Your task to perform on an android device: make emails show in primary in the gmail app Image 0: 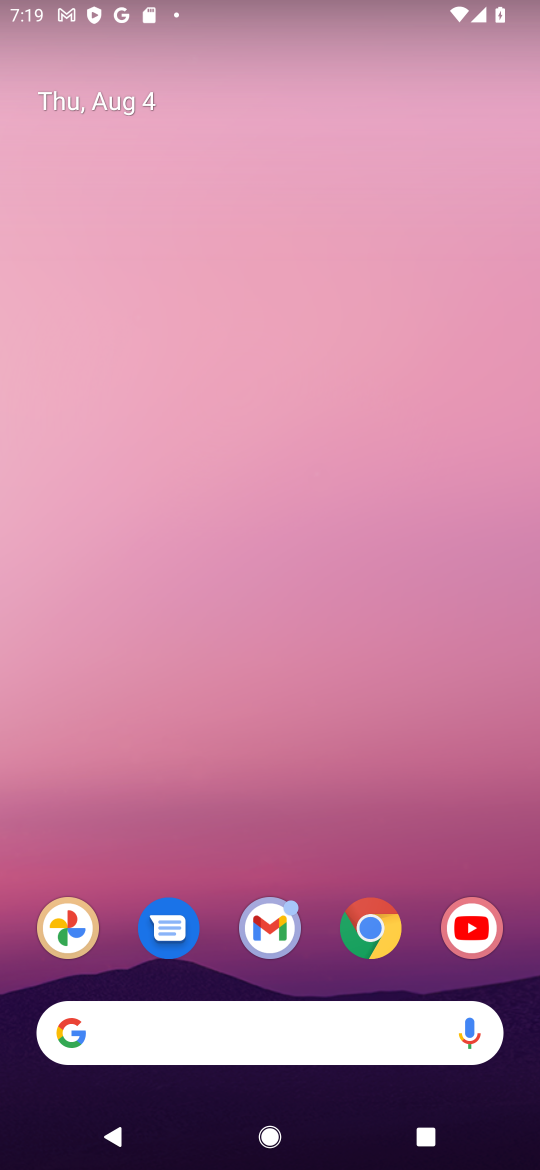
Step 0: click (262, 939)
Your task to perform on an android device: make emails show in primary in the gmail app Image 1: 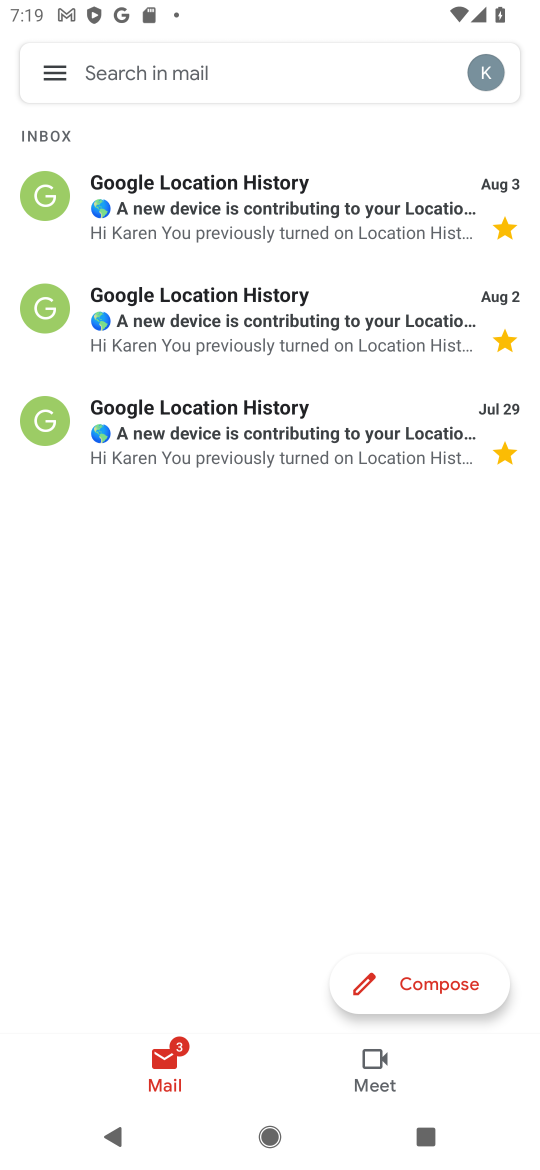
Step 1: click (60, 57)
Your task to perform on an android device: make emails show in primary in the gmail app Image 2: 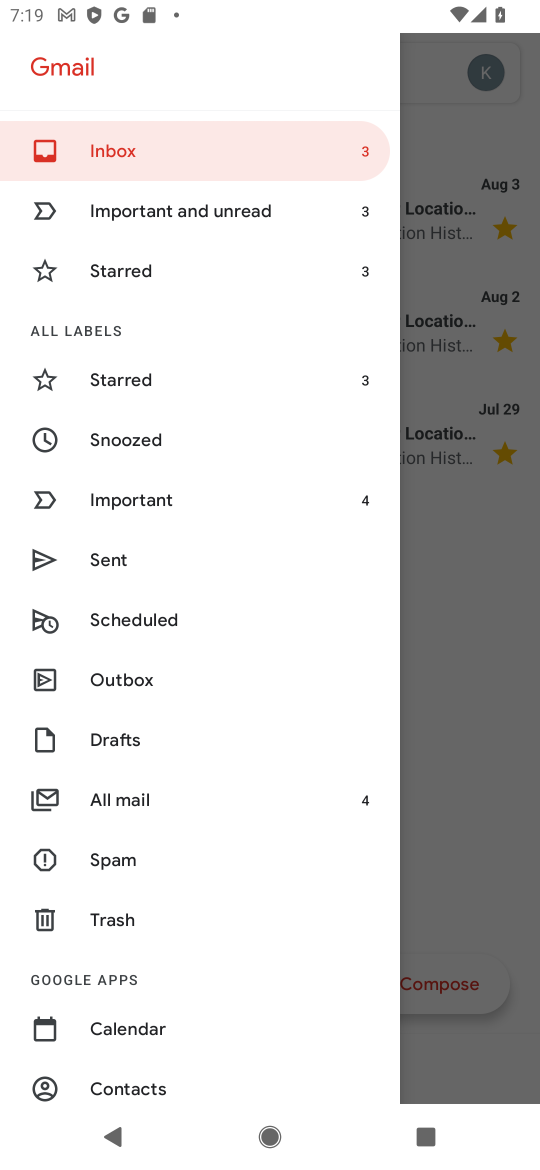
Step 2: drag from (175, 957) to (194, 373)
Your task to perform on an android device: make emails show in primary in the gmail app Image 3: 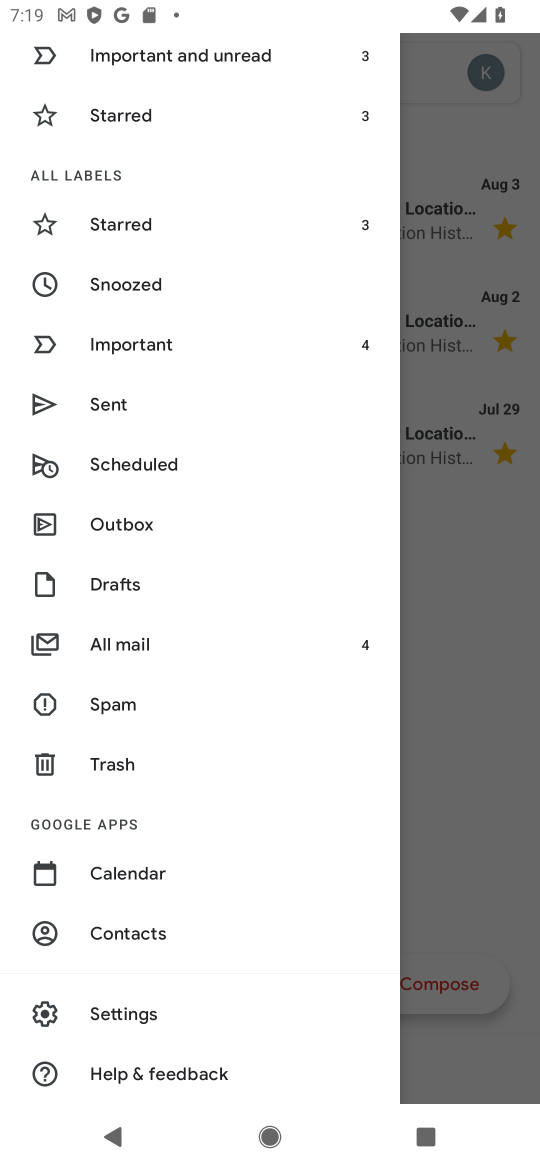
Step 3: click (128, 1019)
Your task to perform on an android device: make emails show in primary in the gmail app Image 4: 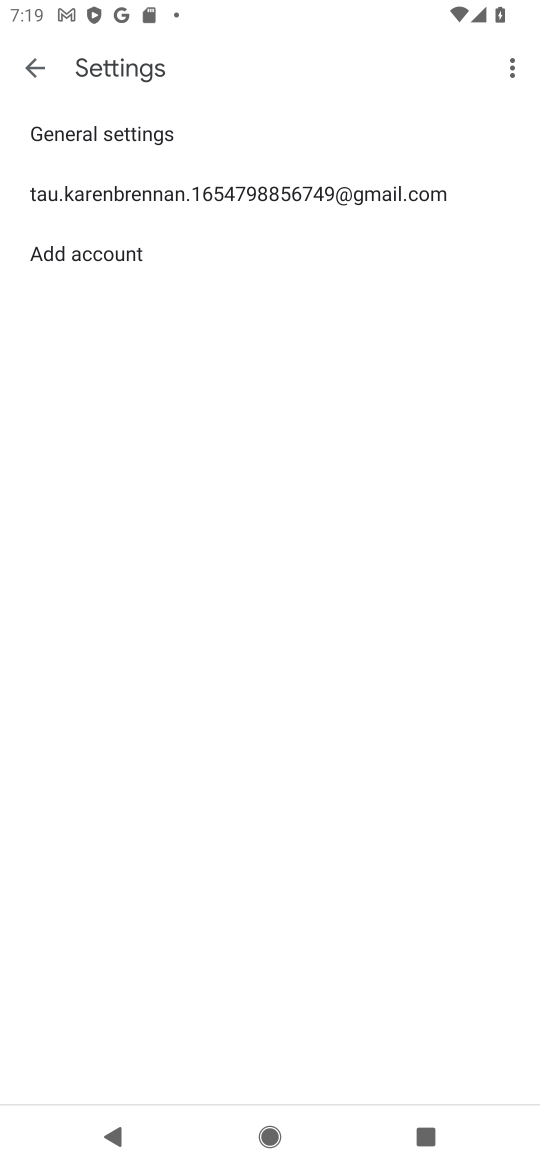
Step 4: click (113, 192)
Your task to perform on an android device: make emails show in primary in the gmail app Image 5: 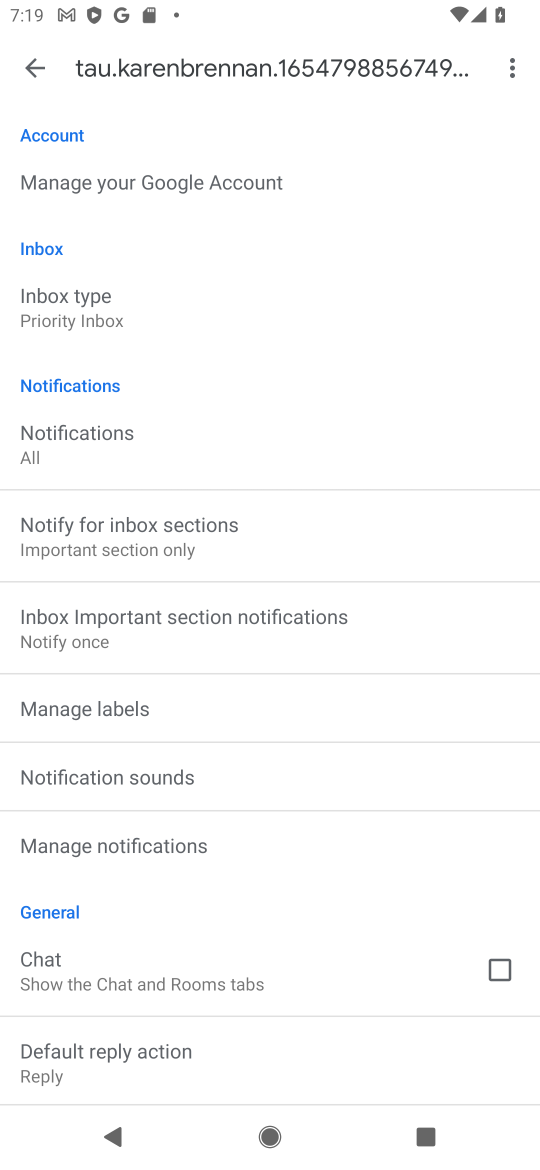
Step 5: click (107, 322)
Your task to perform on an android device: make emails show in primary in the gmail app Image 6: 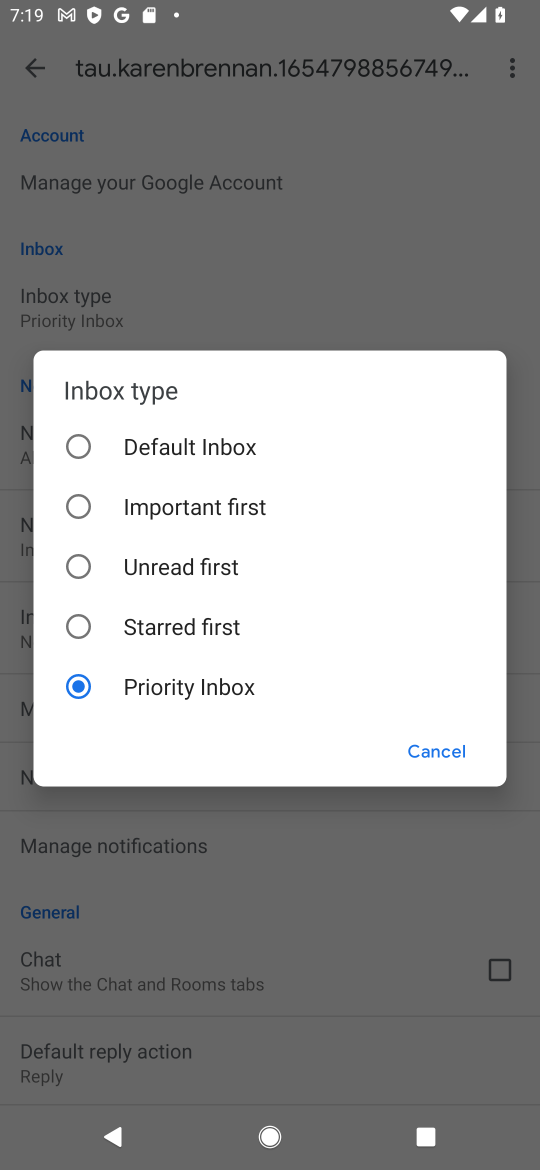
Step 6: click (175, 461)
Your task to perform on an android device: make emails show in primary in the gmail app Image 7: 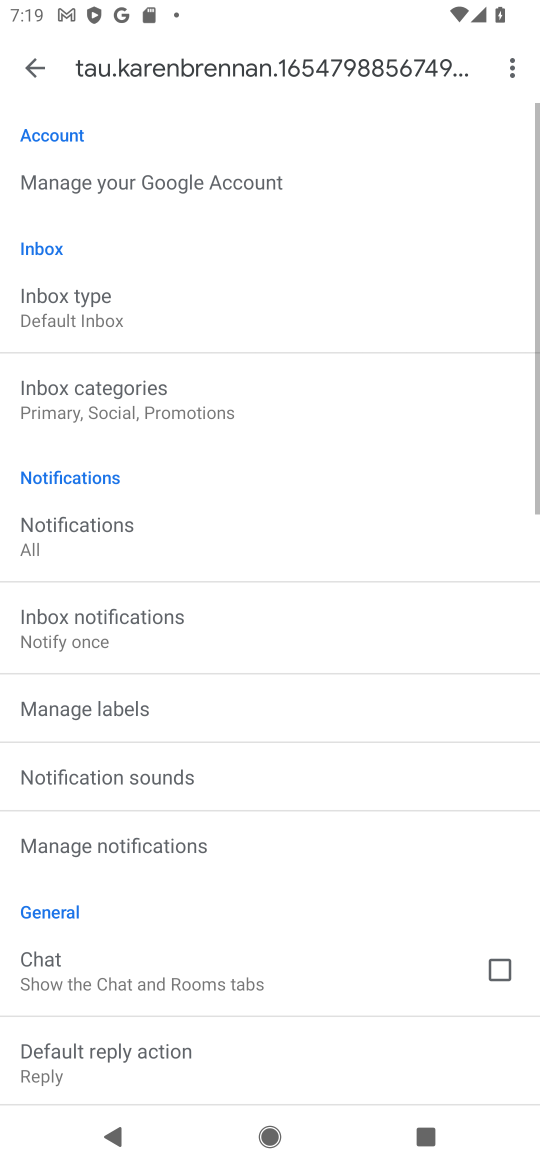
Step 7: click (154, 416)
Your task to perform on an android device: make emails show in primary in the gmail app Image 8: 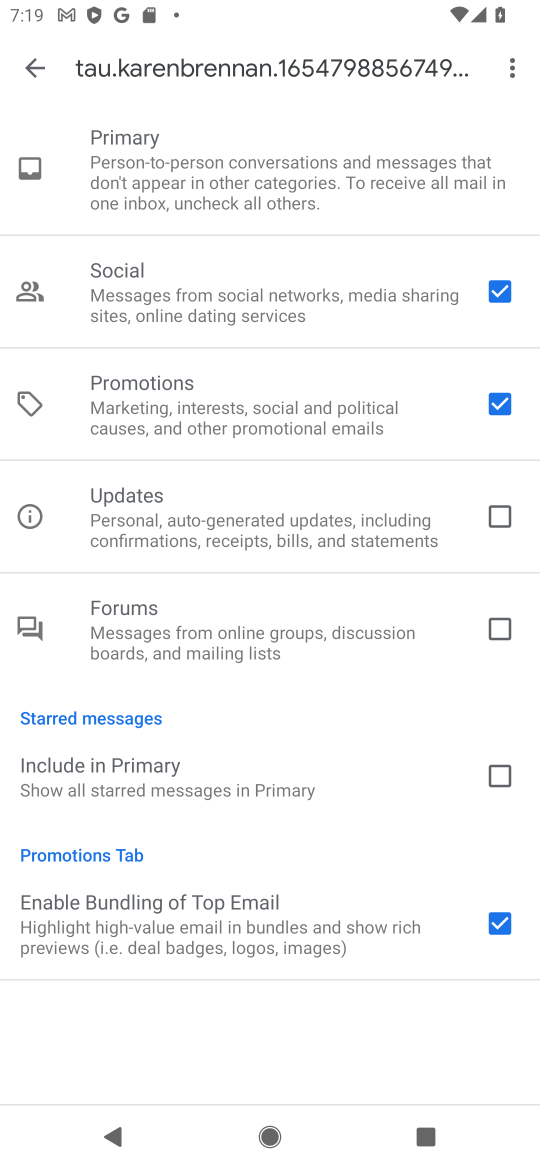
Step 8: click (478, 405)
Your task to perform on an android device: make emails show in primary in the gmail app Image 9: 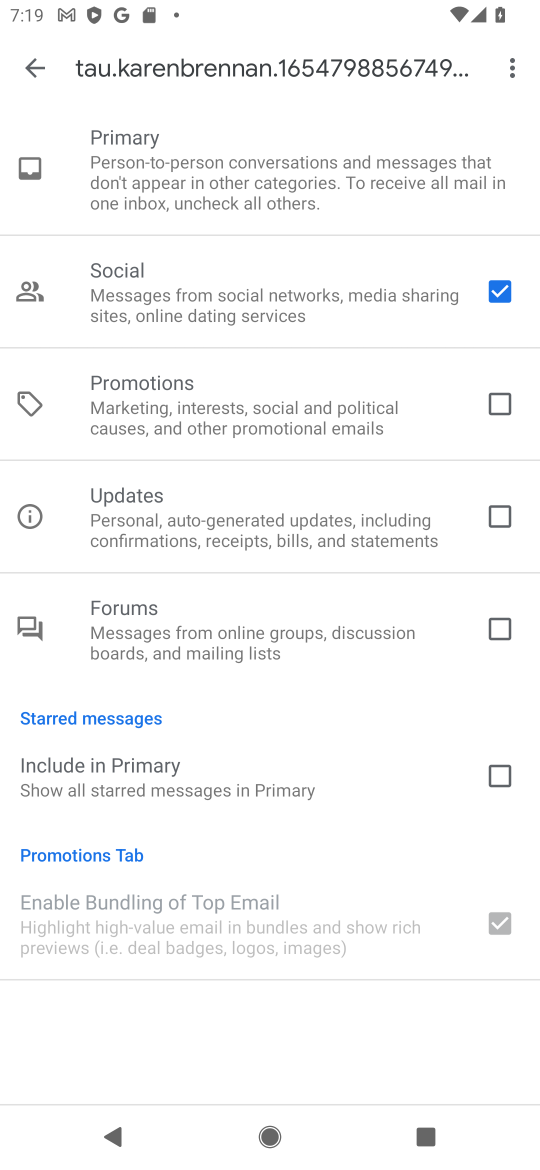
Step 9: click (501, 286)
Your task to perform on an android device: make emails show in primary in the gmail app Image 10: 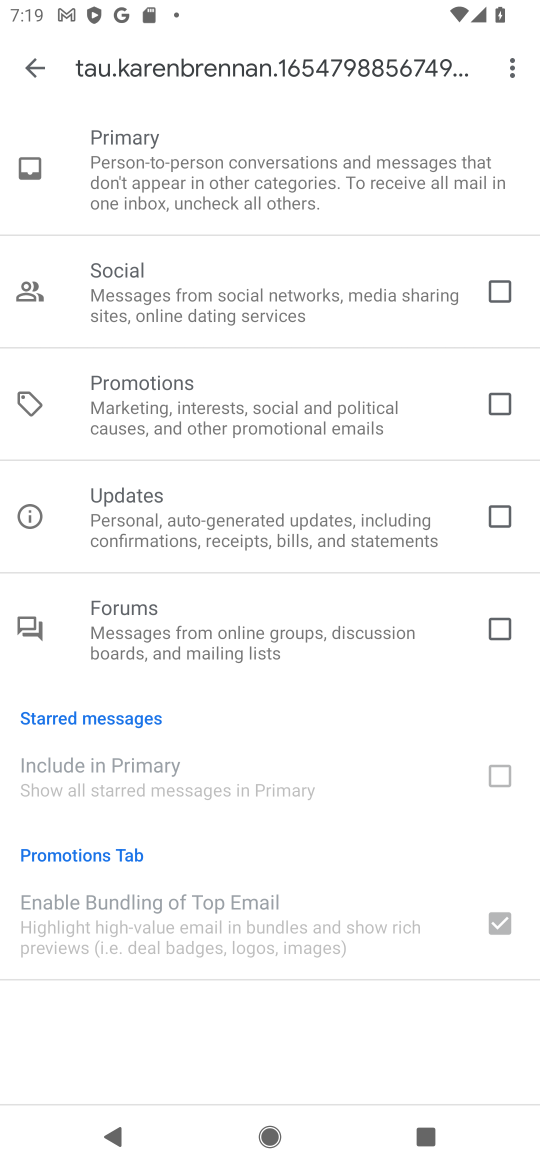
Step 10: task complete